Your task to perform on an android device: What is the capital of Germany? Image 0: 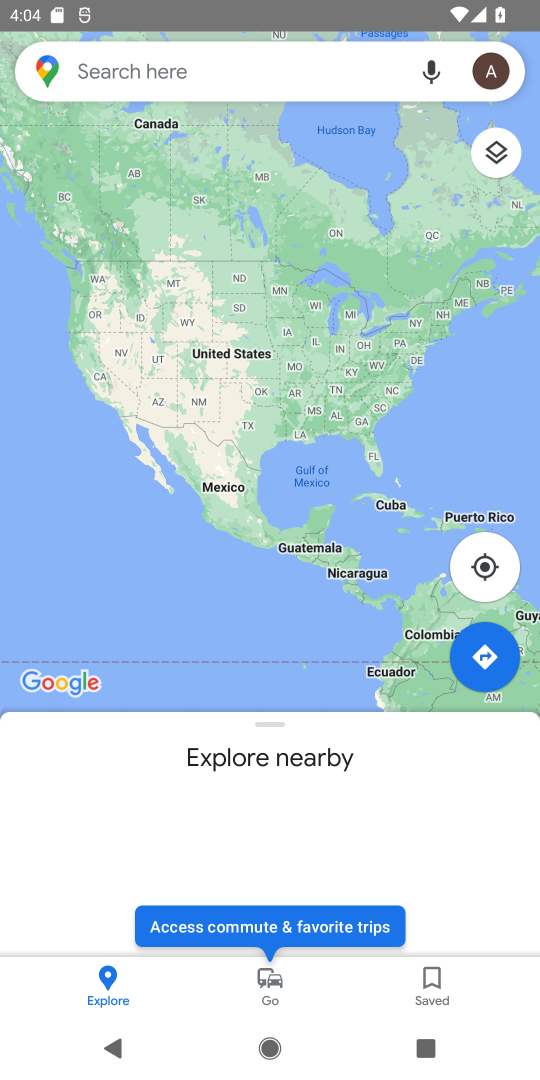
Step 0: press home button
Your task to perform on an android device: What is the capital of Germany? Image 1: 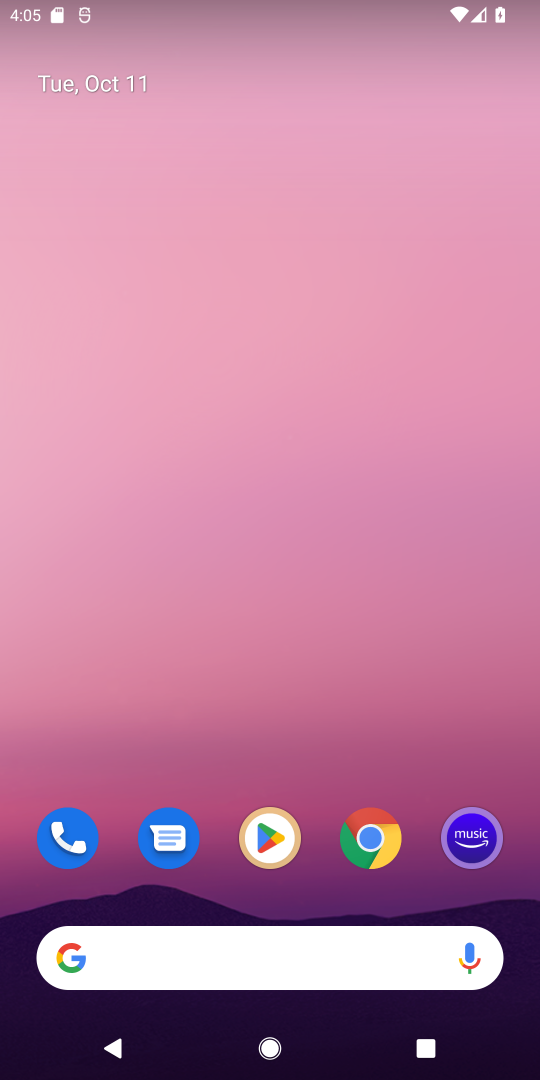
Step 1: click (385, 827)
Your task to perform on an android device: What is the capital of Germany? Image 2: 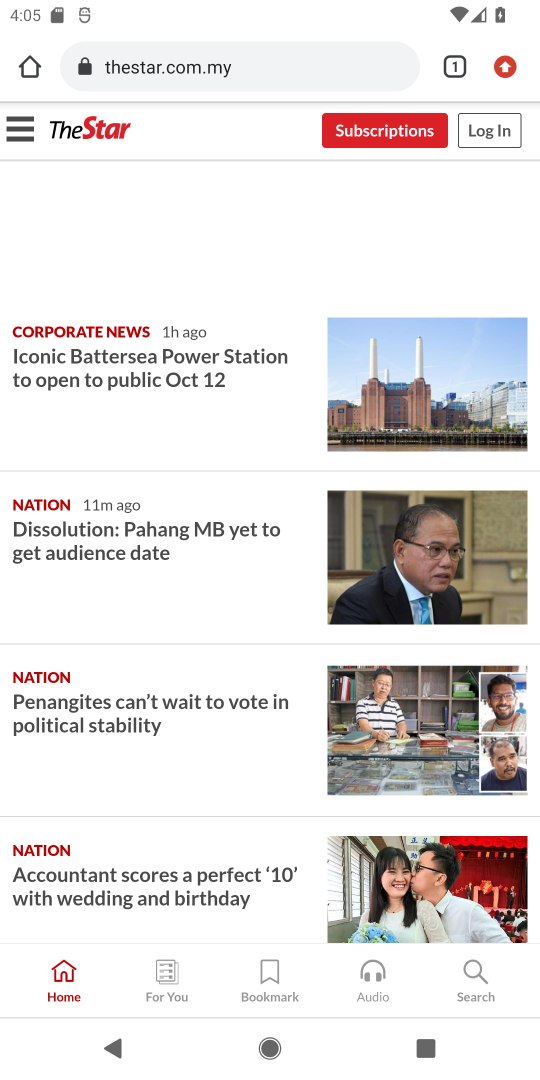
Step 2: click (236, 71)
Your task to perform on an android device: What is the capital of Germany? Image 3: 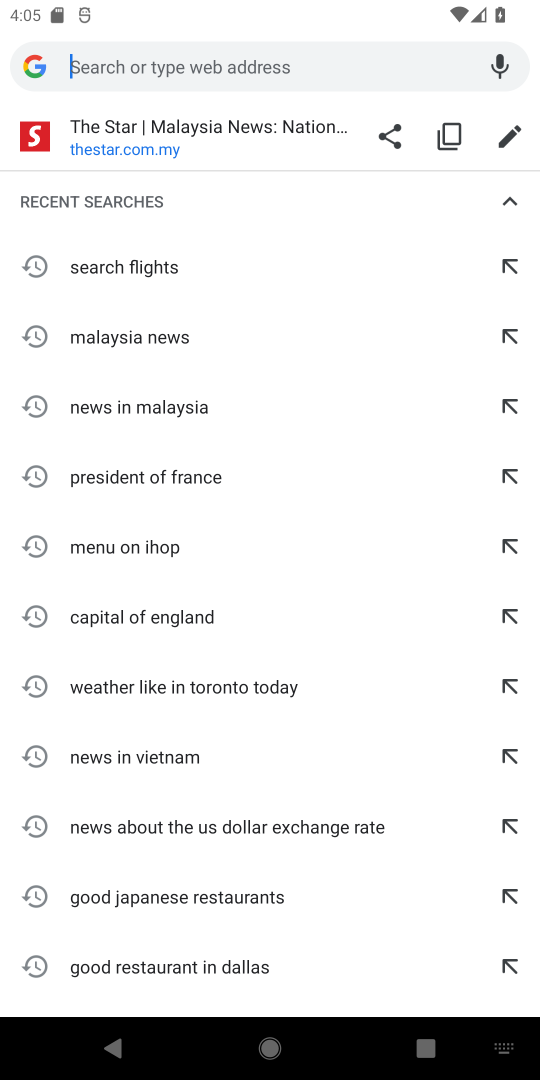
Step 3: type "capital of germany"
Your task to perform on an android device: What is the capital of Germany? Image 4: 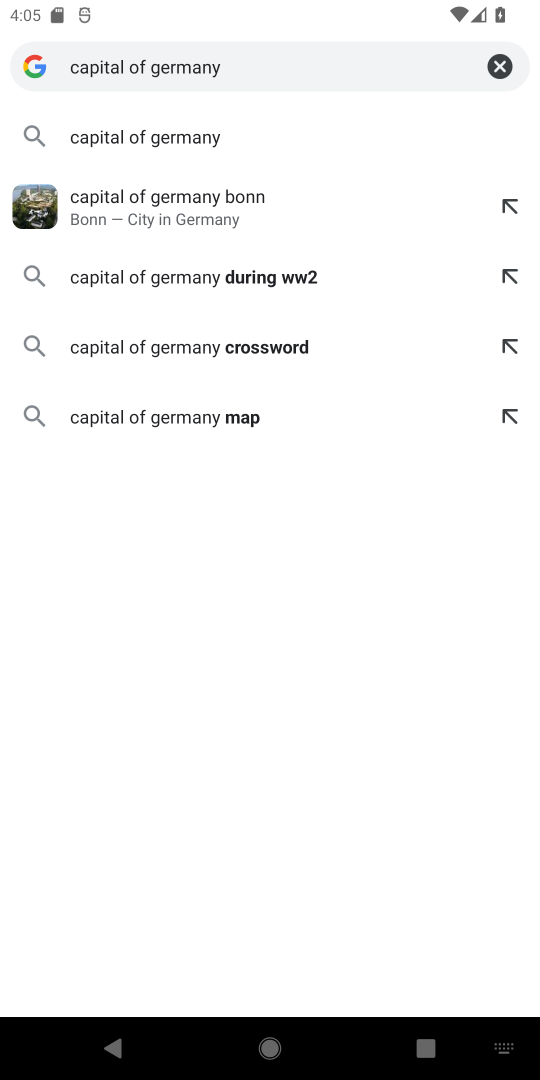
Step 4: click (179, 197)
Your task to perform on an android device: What is the capital of Germany? Image 5: 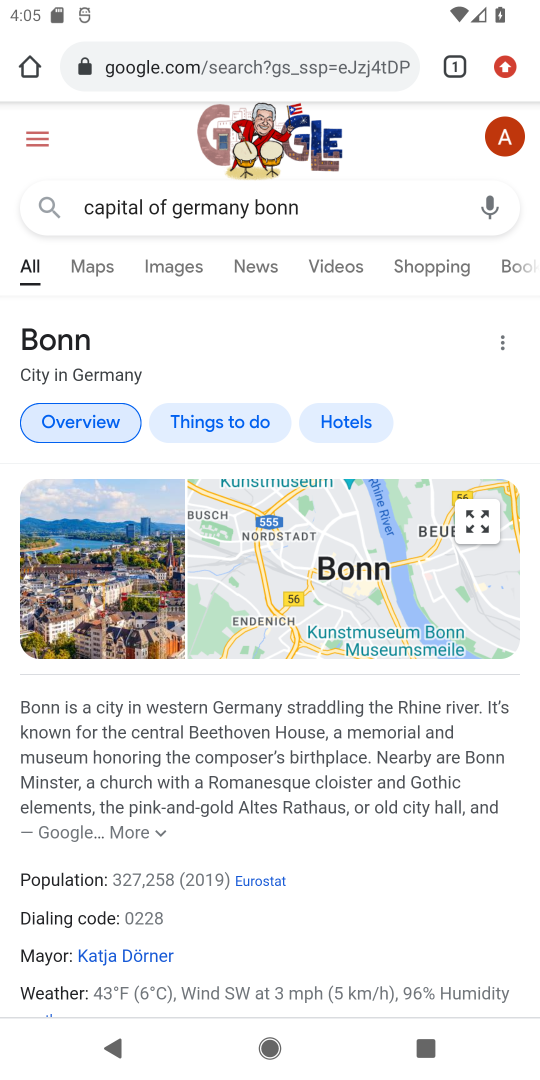
Step 5: drag from (404, 529) to (469, 242)
Your task to perform on an android device: What is the capital of Germany? Image 6: 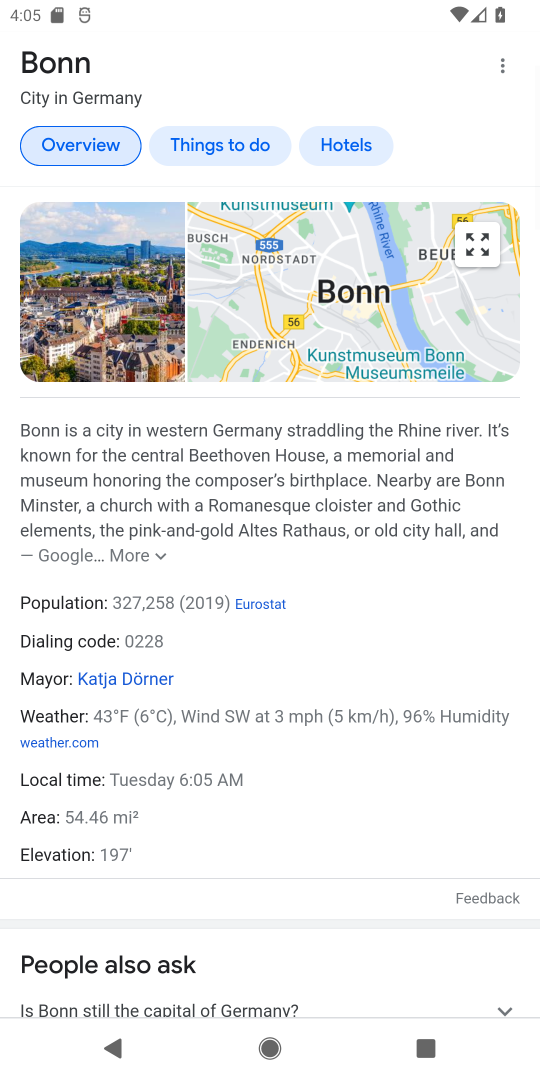
Step 6: drag from (300, 647) to (362, 236)
Your task to perform on an android device: What is the capital of Germany? Image 7: 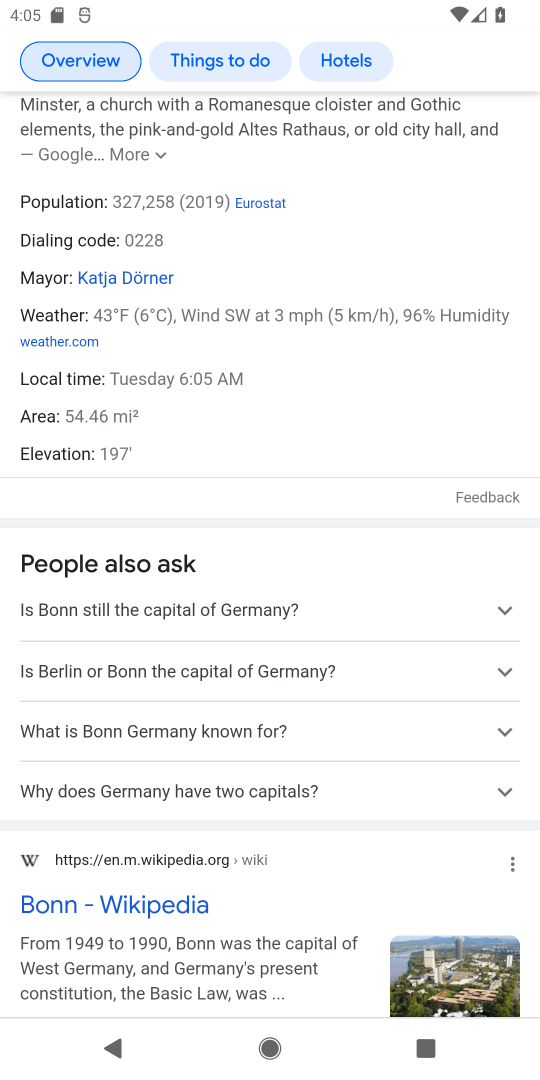
Step 7: click (184, 603)
Your task to perform on an android device: What is the capital of Germany? Image 8: 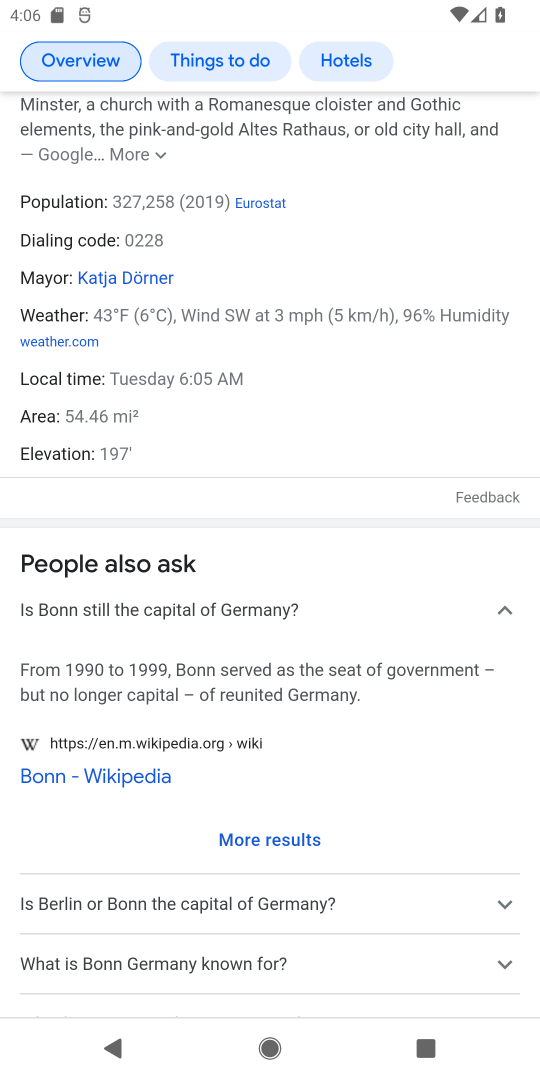
Step 8: task complete